Your task to perform on an android device: open app "YouTube Kids" (install if not already installed) Image 0: 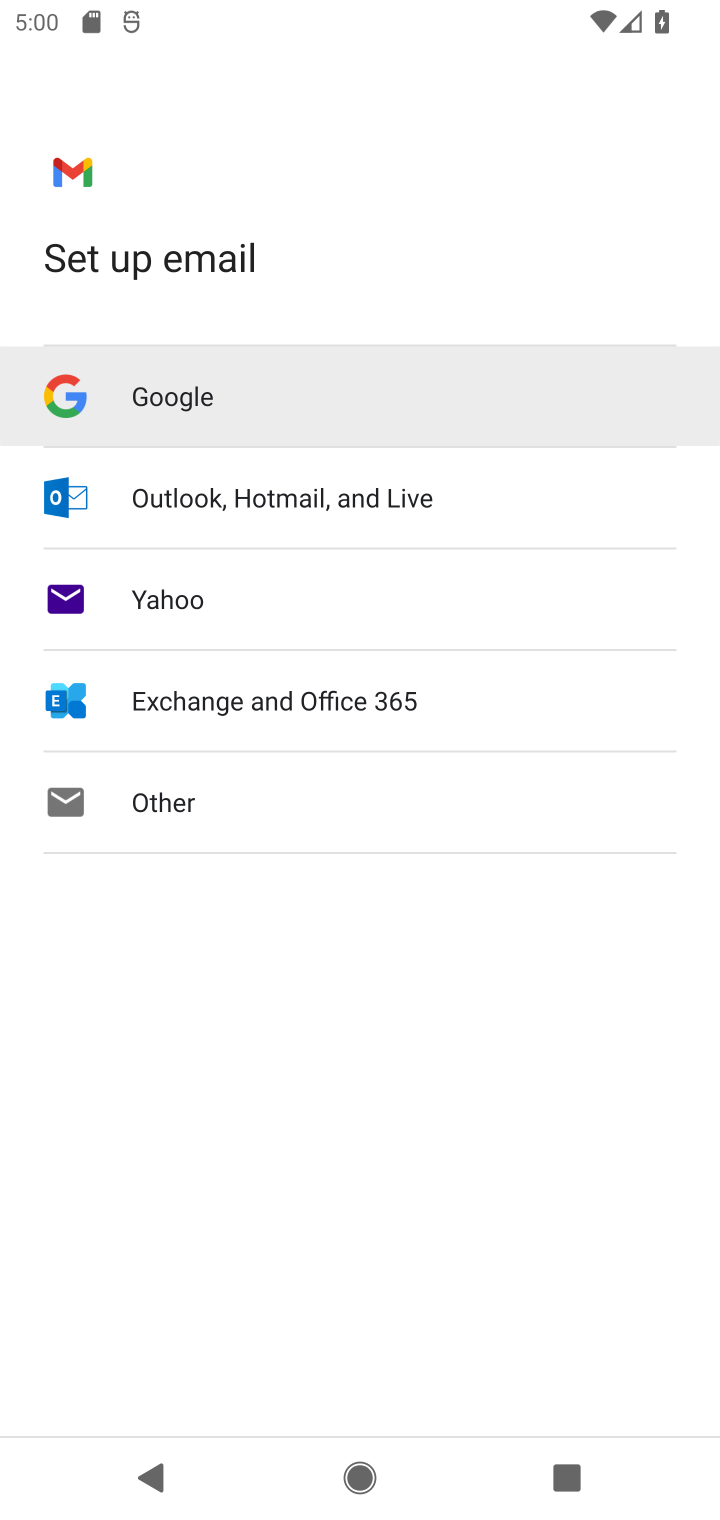
Step 0: press home button
Your task to perform on an android device: open app "YouTube Kids" (install if not already installed) Image 1: 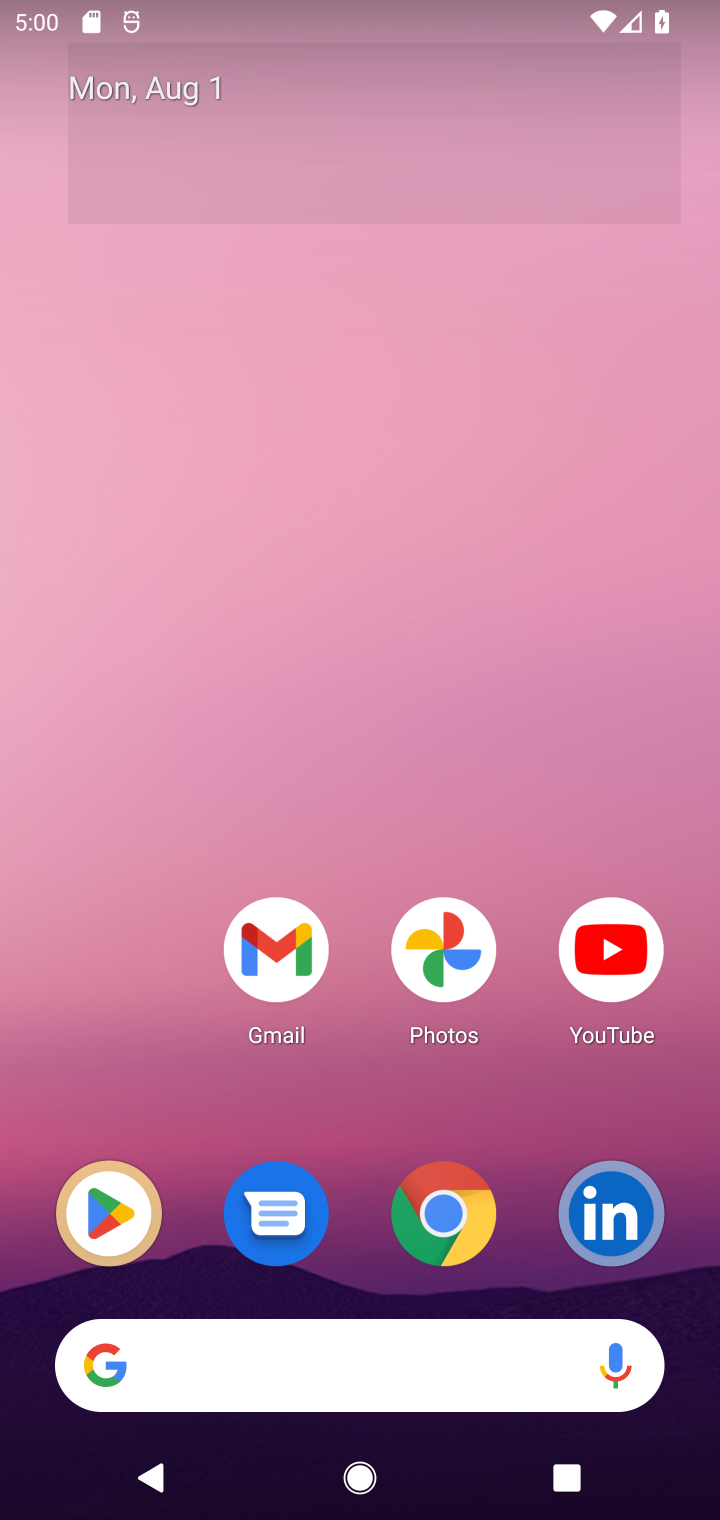
Step 1: drag from (545, 1062) to (480, 59)
Your task to perform on an android device: open app "YouTube Kids" (install if not already installed) Image 2: 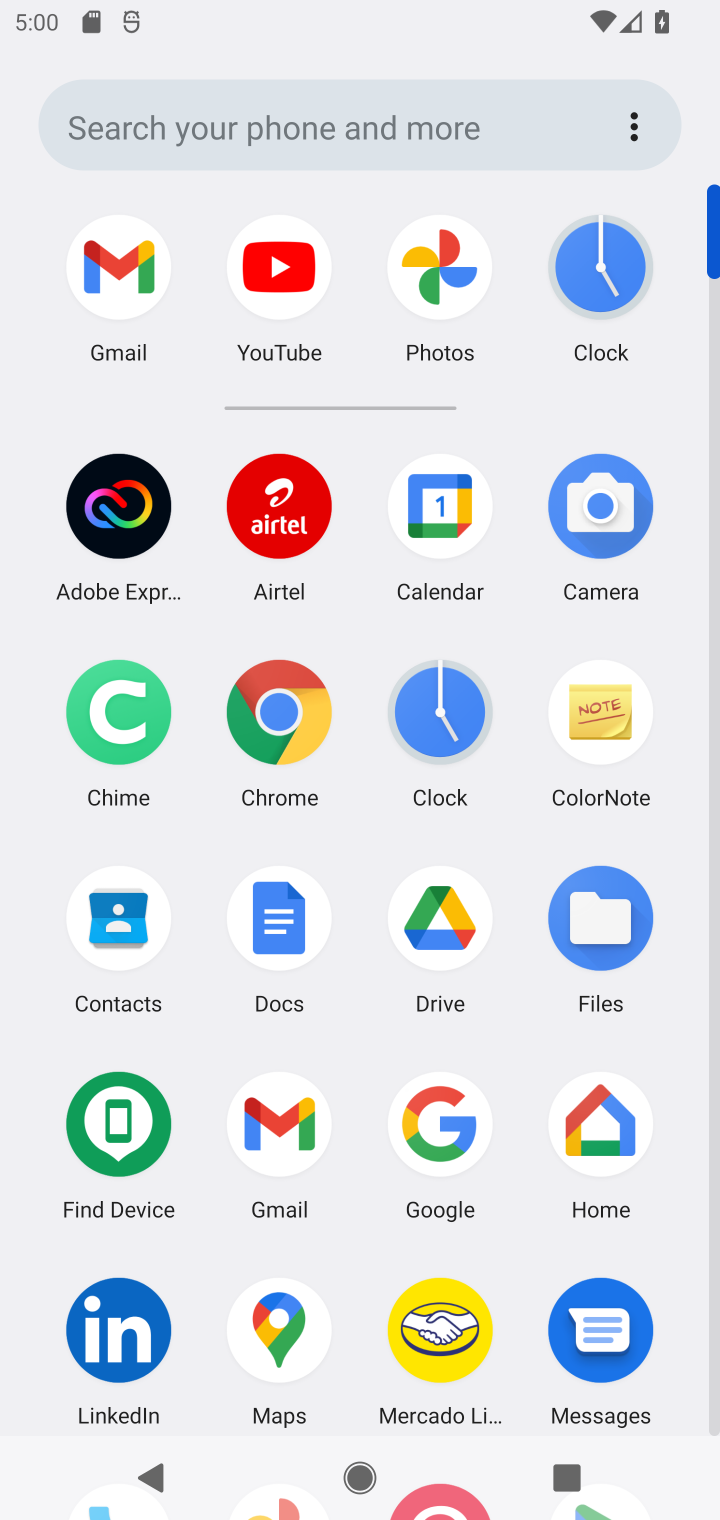
Step 2: drag from (334, 1220) to (371, 504)
Your task to perform on an android device: open app "YouTube Kids" (install if not already installed) Image 3: 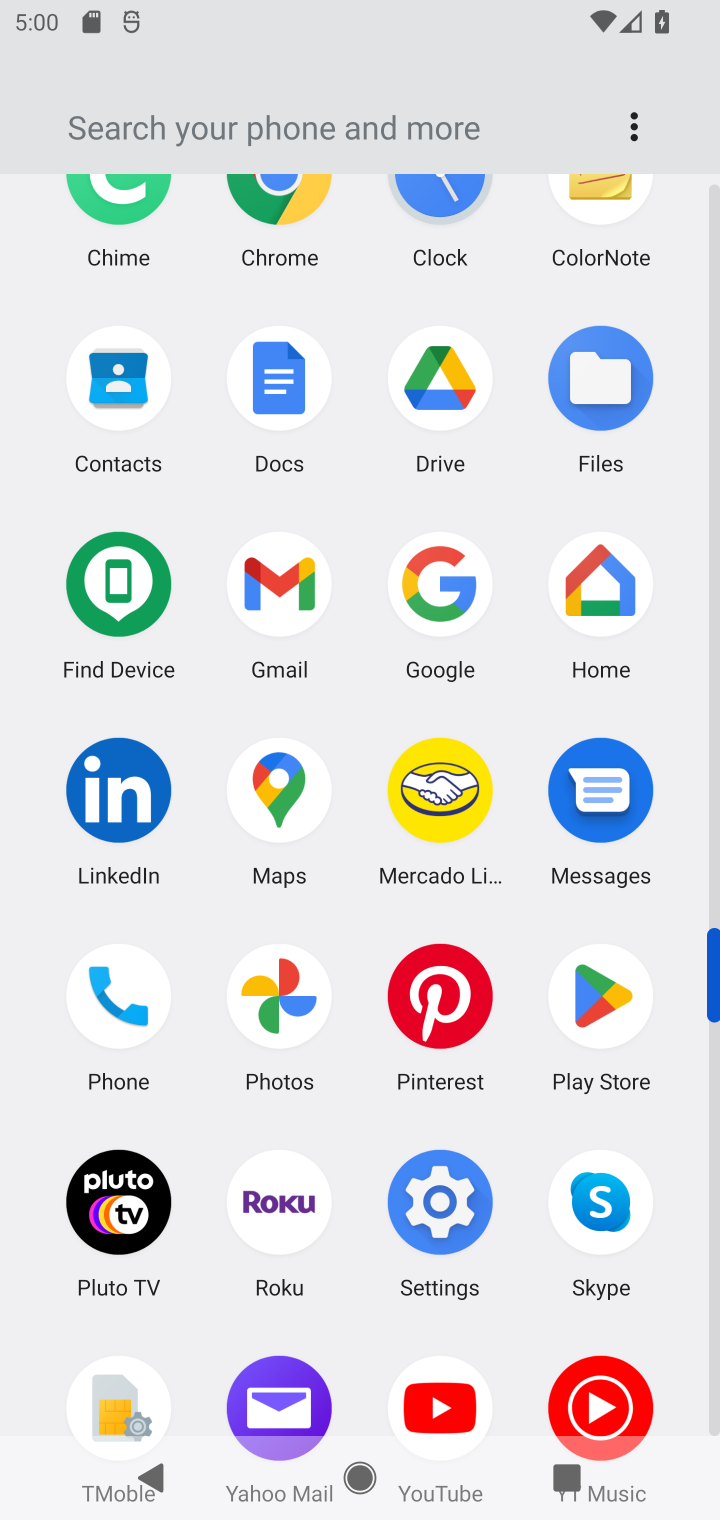
Step 3: click (604, 988)
Your task to perform on an android device: open app "YouTube Kids" (install if not already installed) Image 4: 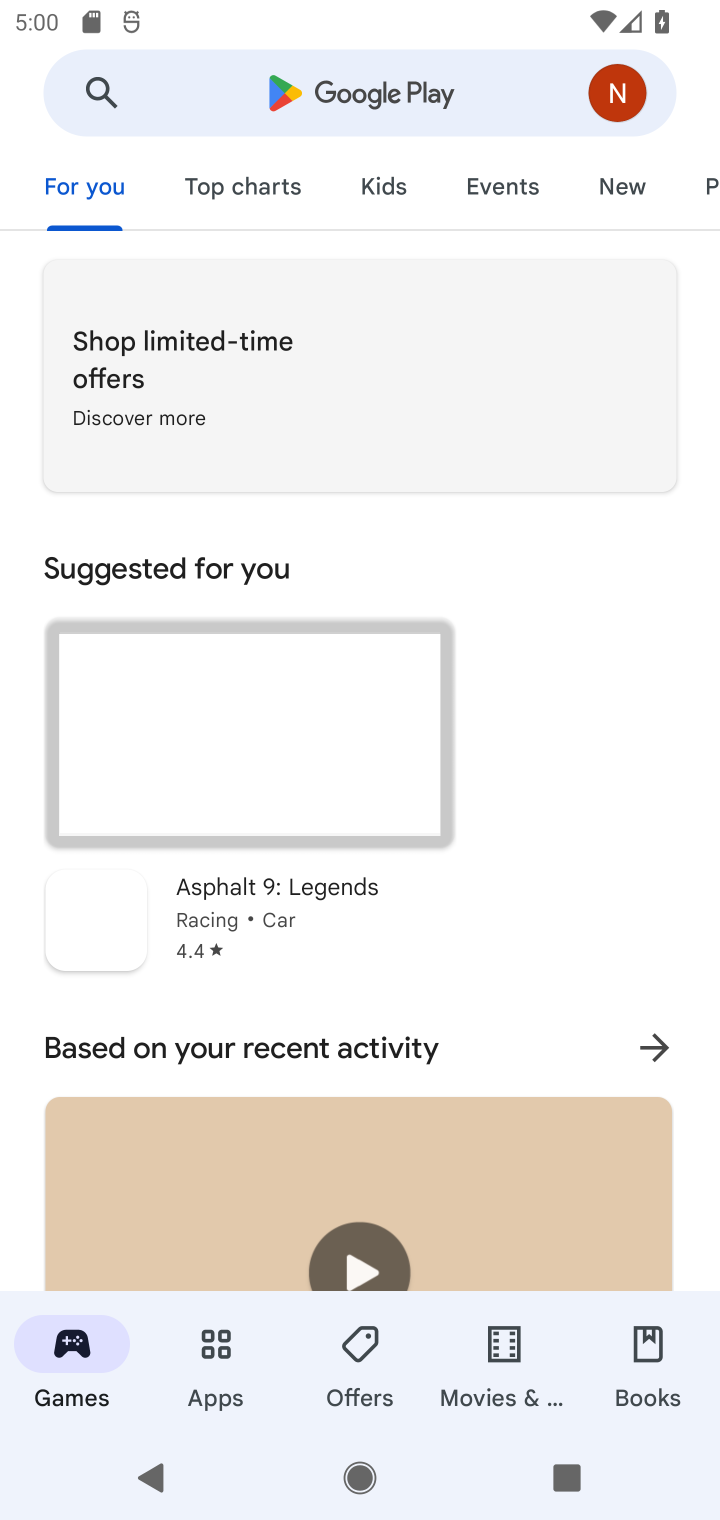
Step 4: click (377, 106)
Your task to perform on an android device: open app "YouTube Kids" (install if not already installed) Image 5: 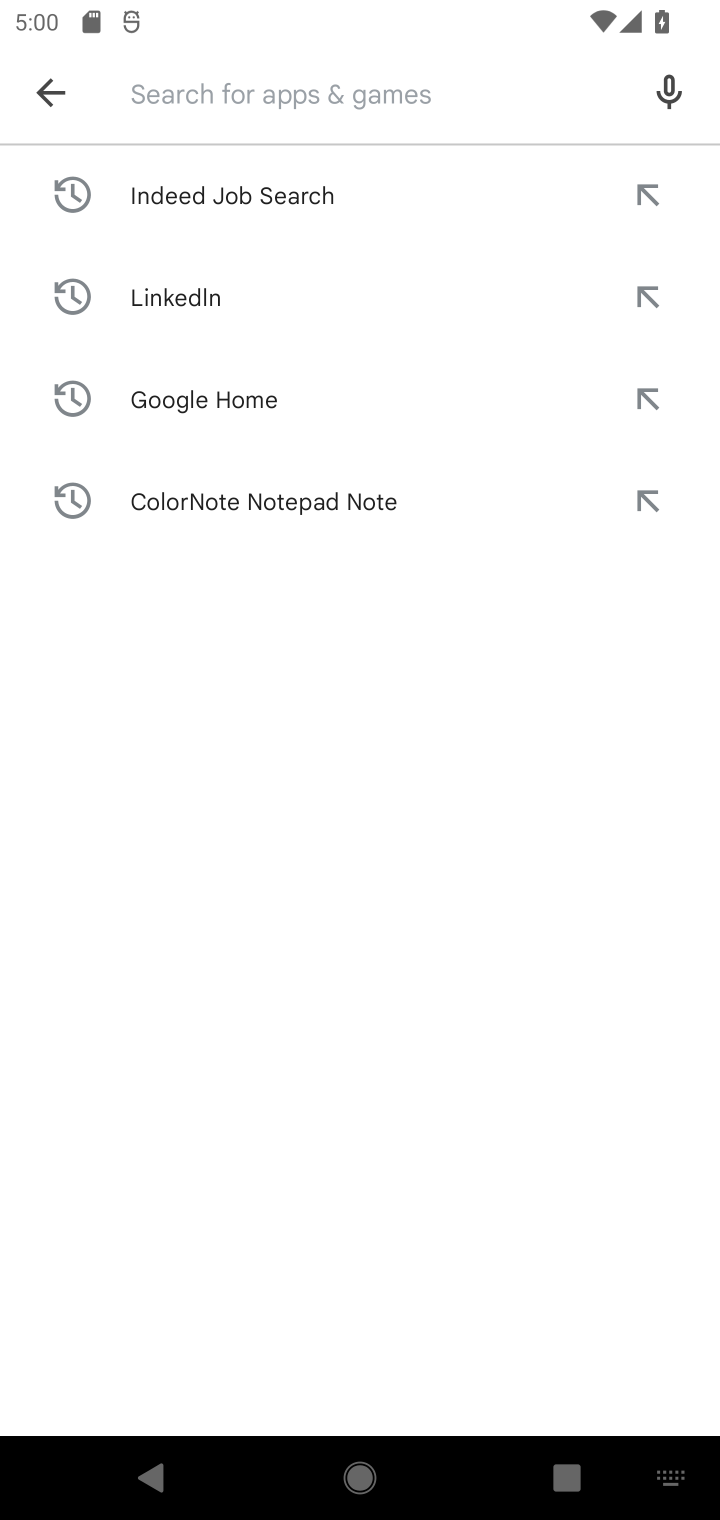
Step 5: type "YouTube Kids"
Your task to perform on an android device: open app "YouTube Kids" (install if not already installed) Image 6: 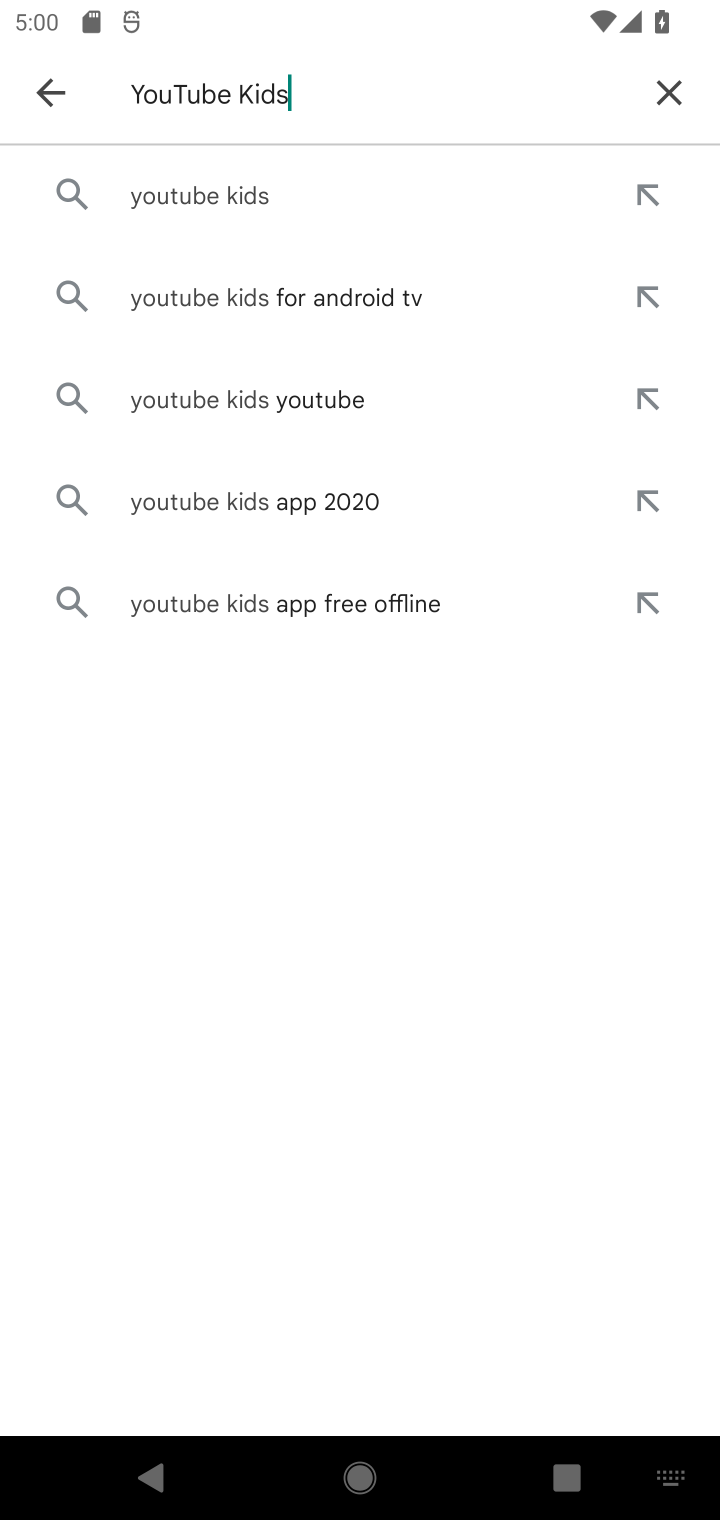
Step 6: press enter
Your task to perform on an android device: open app "YouTube Kids" (install if not already installed) Image 7: 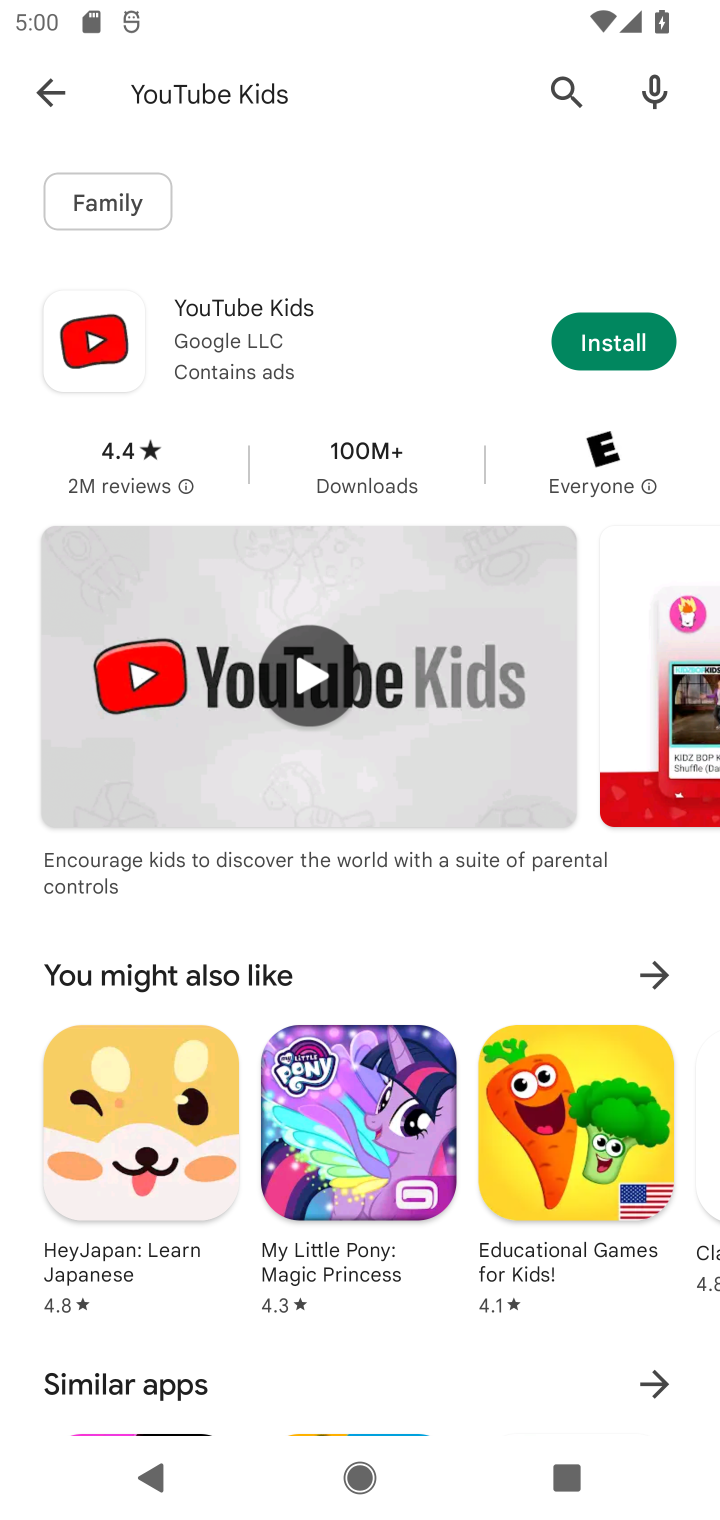
Step 7: click (629, 339)
Your task to perform on an android device: open app "YouTube Kids" (install if not already installed) Image 8: 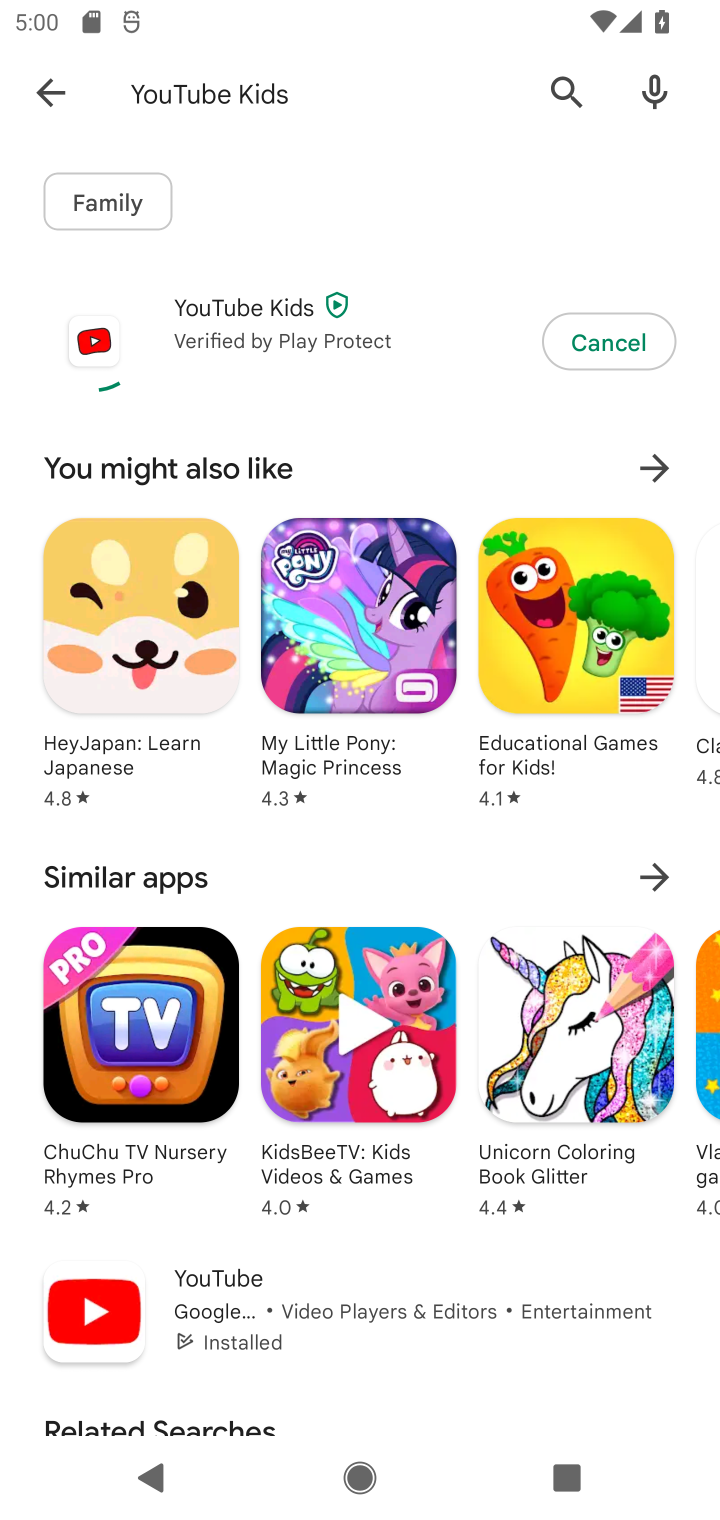
Step 8: click (292, 337)
Your task to perform on an android device: open app "YouTube Kids" (install if not already installed) Image 9: 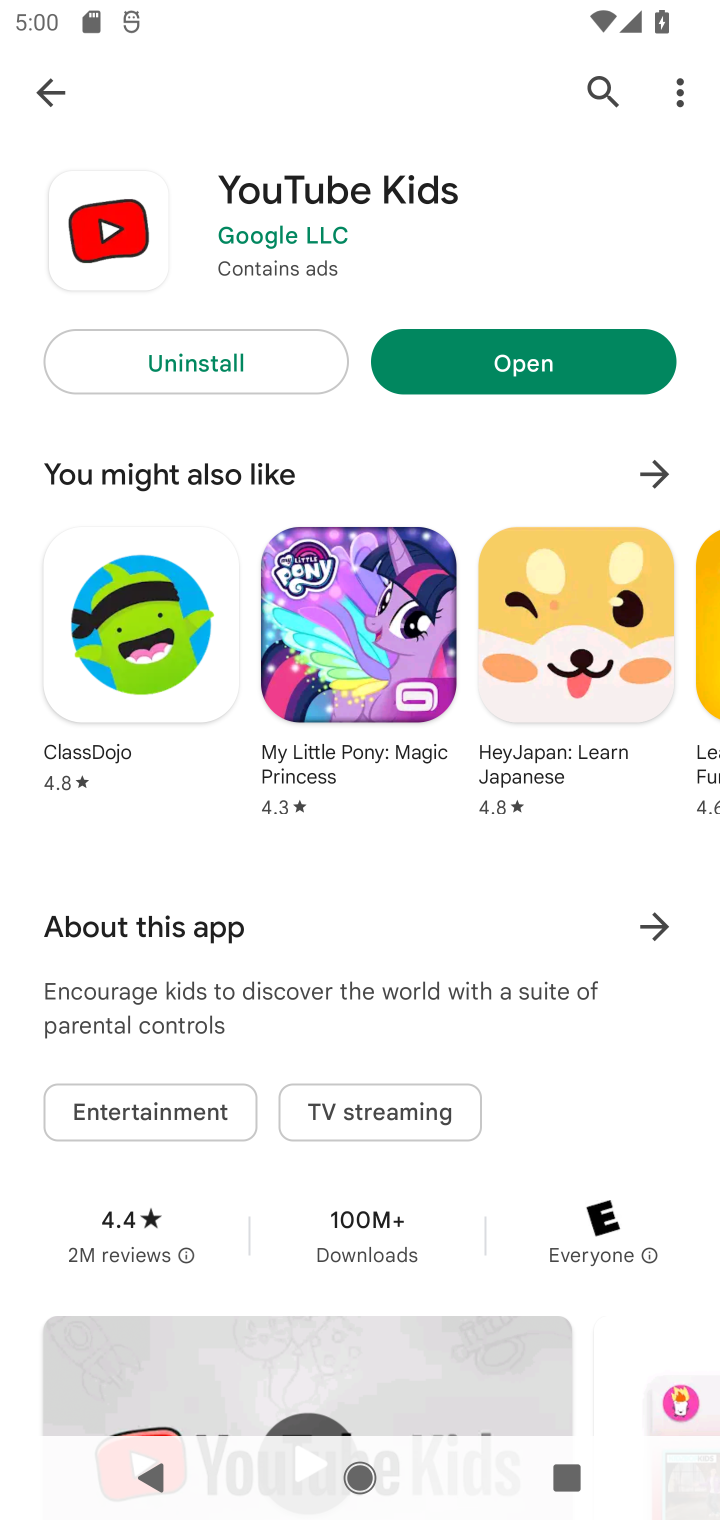
Step 9: click (516, 378)
Your task to perform on an android device: open app "YouTube Kids" (install if not already installed) Image 10: 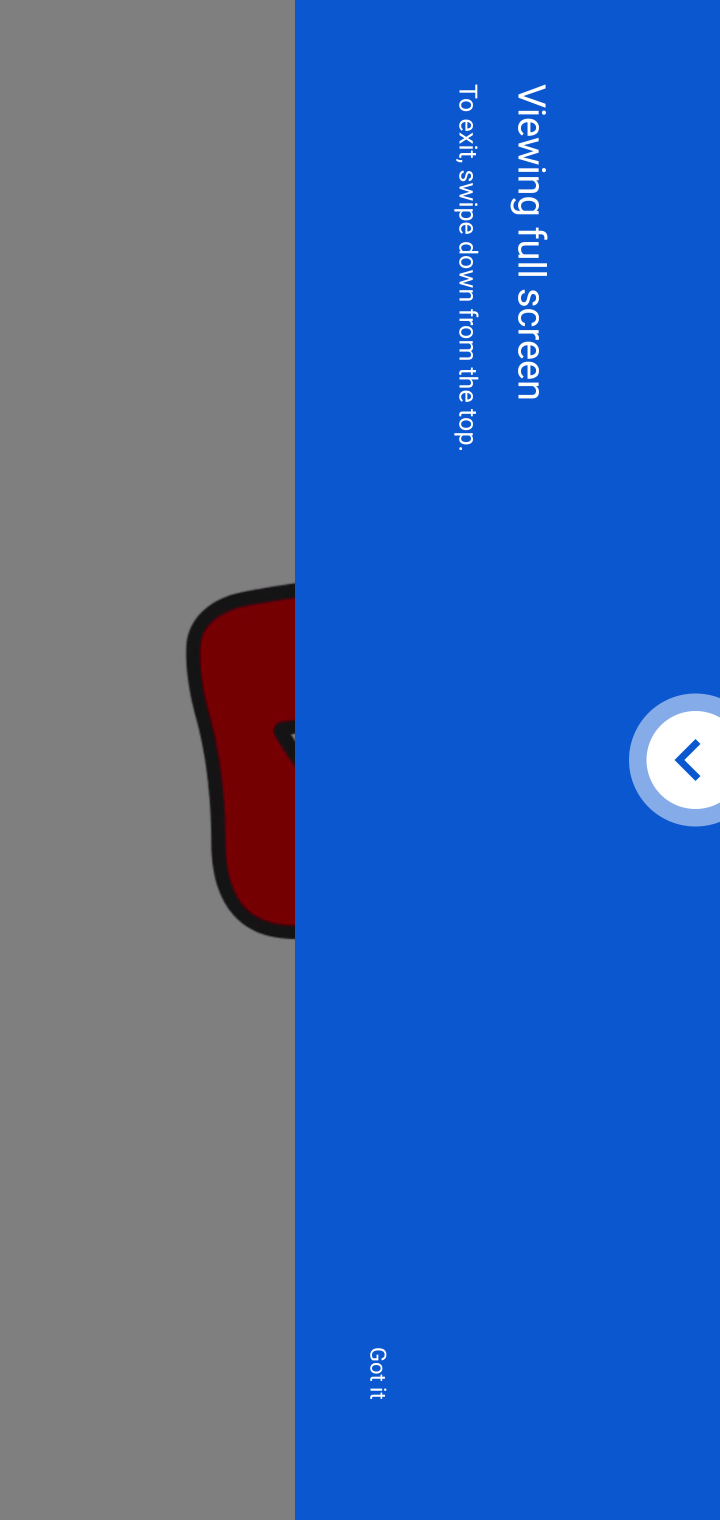
Step 10: task complete